Your task to perform on an android device: open sync settings in chrome Image 0: 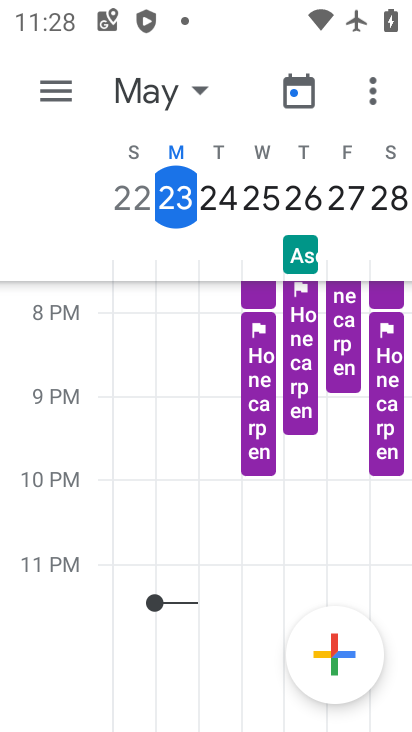
Step 0: press home button
Your task to perform on an android device: open sync settings in chrome Image 1: 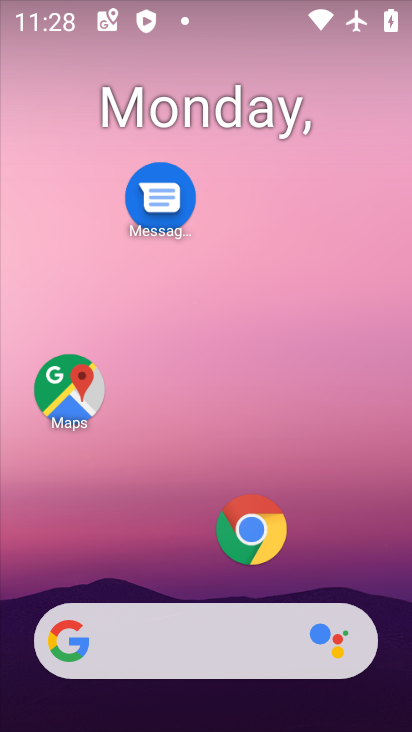
Step 1: drag from (277, 311) to (336, 152)
Your task to perform on an android device: open sync settings in chrome Image 2: 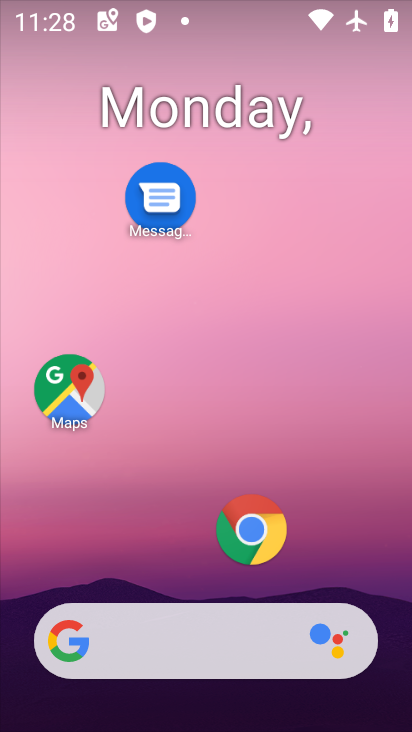
Step 2: drag from (158, 563) to (292, 162)
Your task to perform on an android device: open sync settings in chrome Image 3: 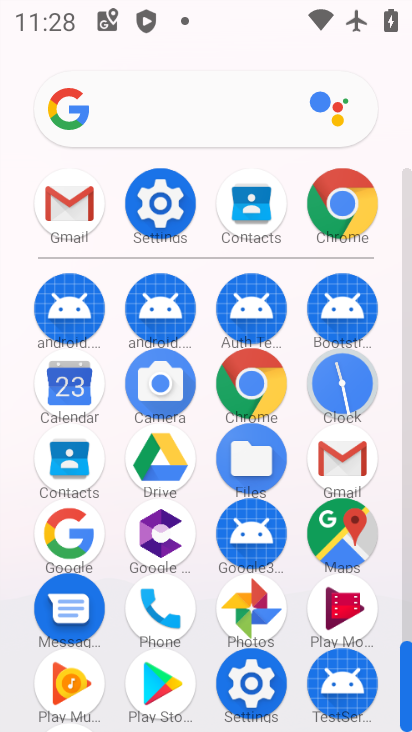
Step 3: click (260, 384)
Your task to perform on an android device: open sync settings in chrome Image 4: 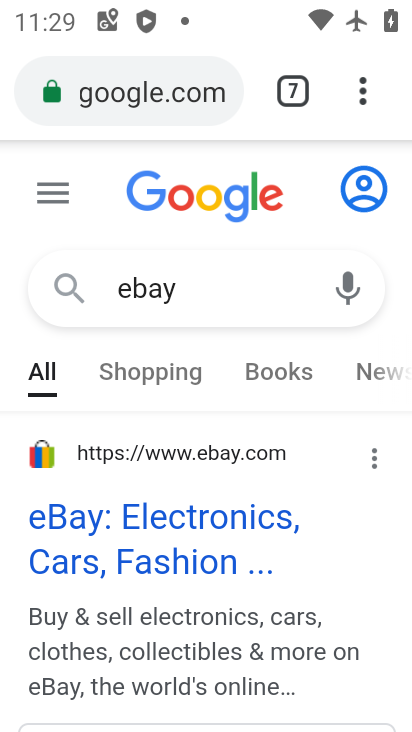
Step 4: click (368, 92)
Your task to perform on an android device: open sync settings in chrome Image 5: 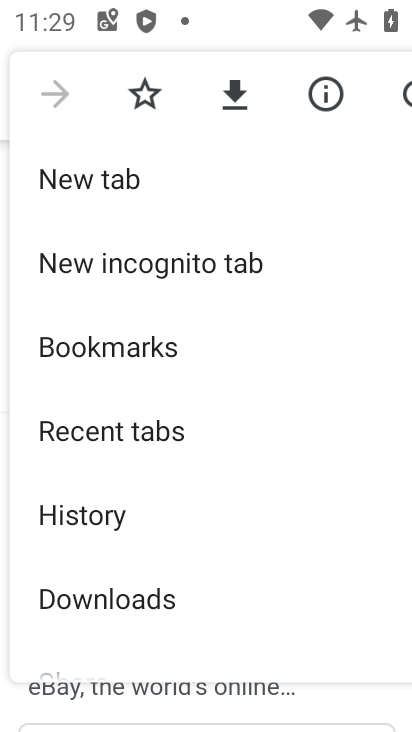
Step 5: drag from (128, 589) to (155, 302)
Your task to perform on an android device: open sync settings in chrome Image 6: 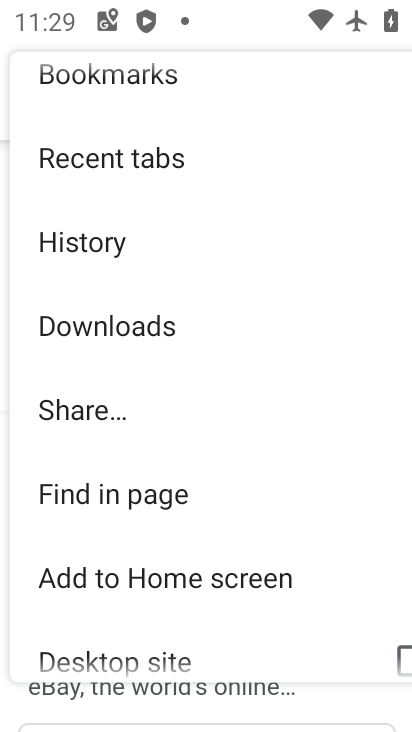
Step 6: drag from (89, 631) to (179, 251)
Your task to perform on an android device: open sync settings in chrome Image 7: 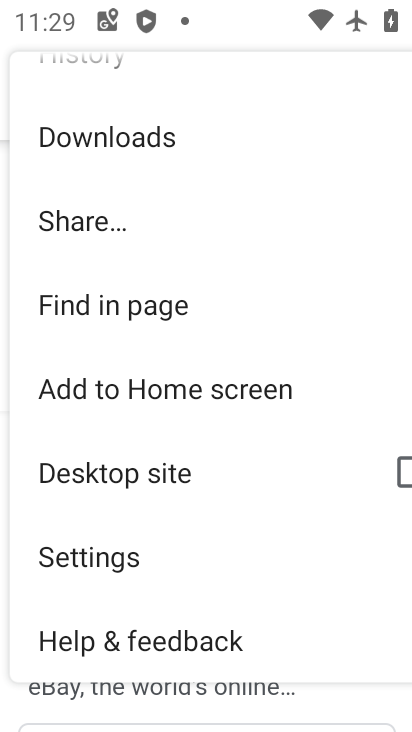
Step 7: click (165, 558)
Your task to perform on an android device: open sync settings in chrome Image 8: 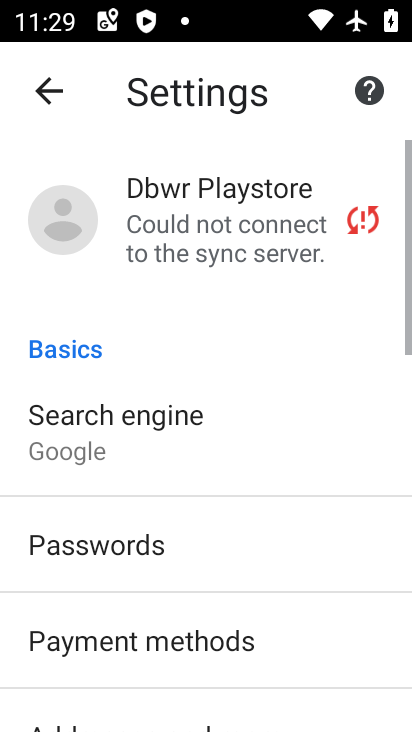
Step 8: click (208, 216)
Your task to perform on an android device: open sync settings in chrome Image 9: 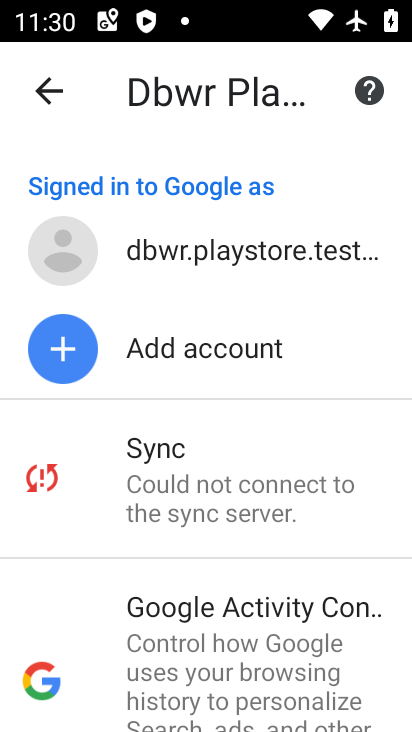
Step 9: click (168, 500)
Your task to perform on an android device: open sync settings in chrome Image 10: 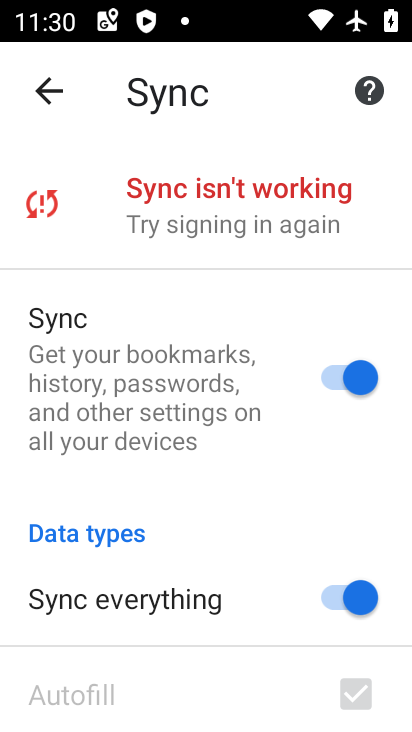
Step 10: task complete